Your task to perform on an android device: What is the recent news? Image 0: 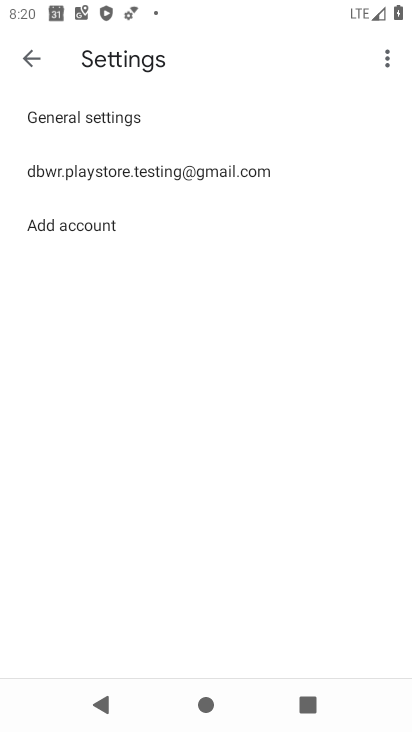
Step 0: press home button
Your task to perform on an android device: What is the recent news? Image 1: 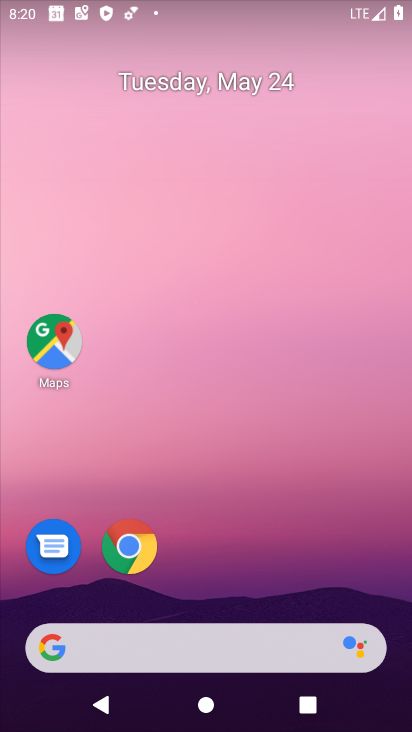
Step 1: click (122, 649)
Your task to perform on an android device: What is the recent news? Image 2: 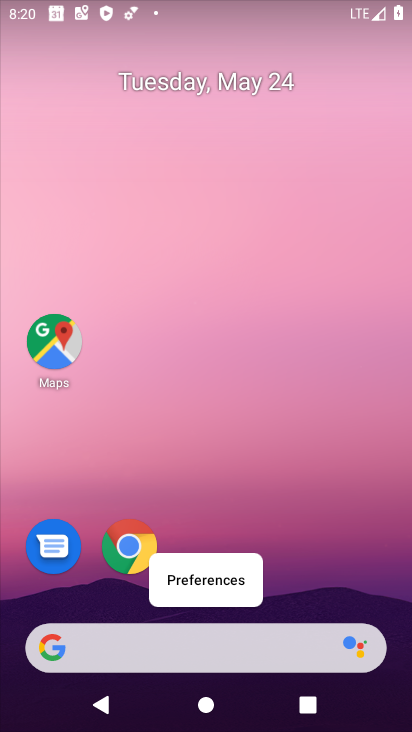
Step 2: click (119, 660)
Your task to perform on an android device: What is the recent news? Image 3: 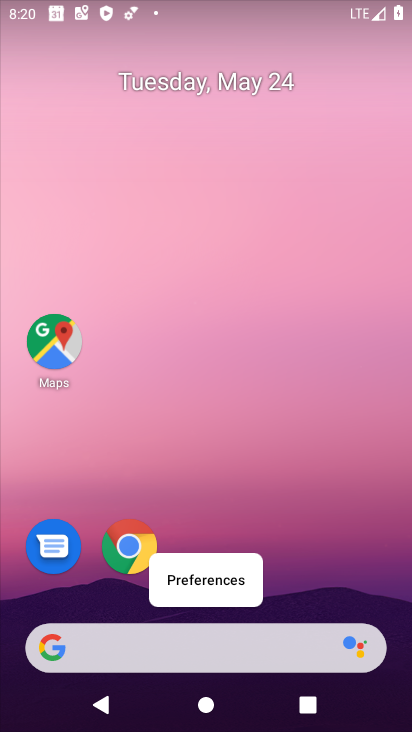
Step 3: click (122, 654)
Your task to perform on an android device: What is the recent news? Image 4: 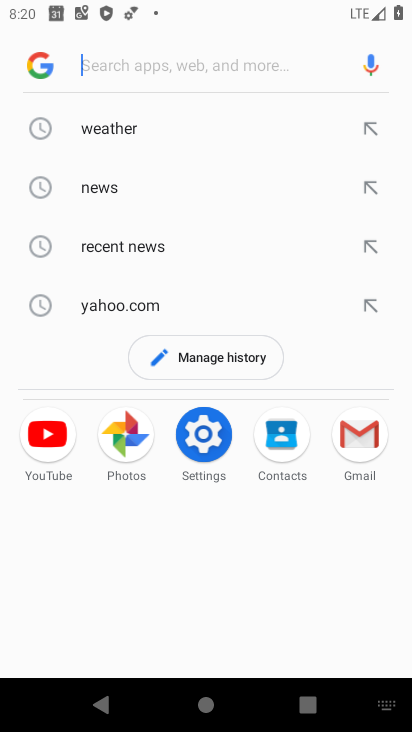
Step 4: click (64, 246)
Your task to perform on an android device: What is the recent news? Image 5: 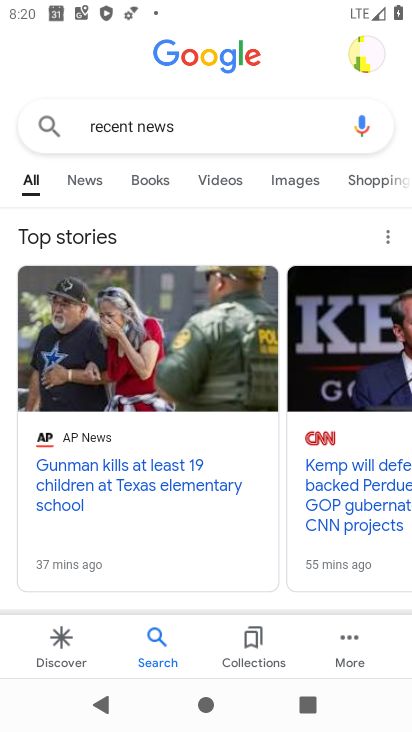
Step 5: click (103, 328)
Your task to perform on an android device: What is the recent news? Image 6: 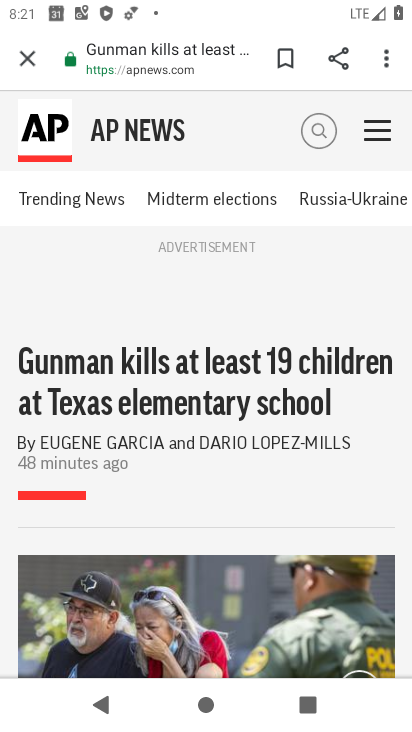
Step 6: task complete